Your task to perform on an android device: What's the weather today? Image 0: 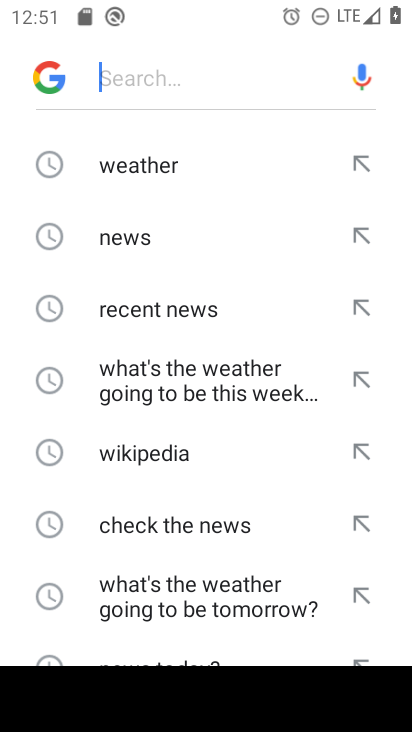
Step 0: type "what's the weather today"
Your task to perform on an android device: What's the weather today? Image 1: 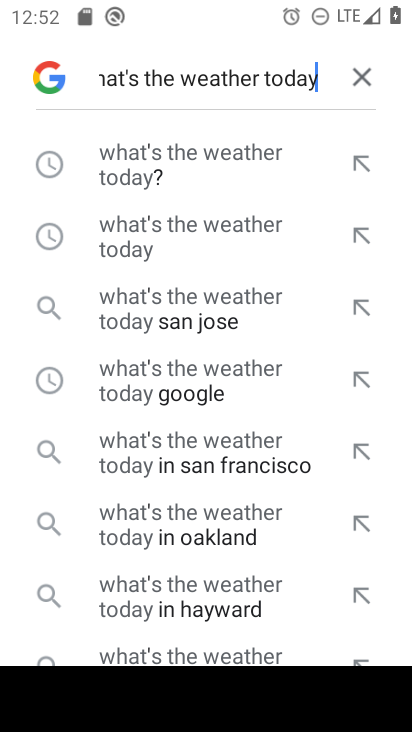
Step 1: click (143, 156)
Your task to perform on an android device: What's the weather today? Image 2: 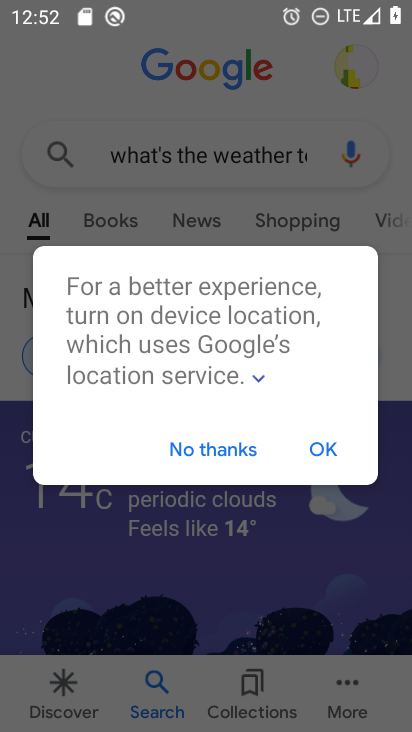
Step 2: click (184, 448)
Your task to perform on an android device: What's the weather today? Image 3: 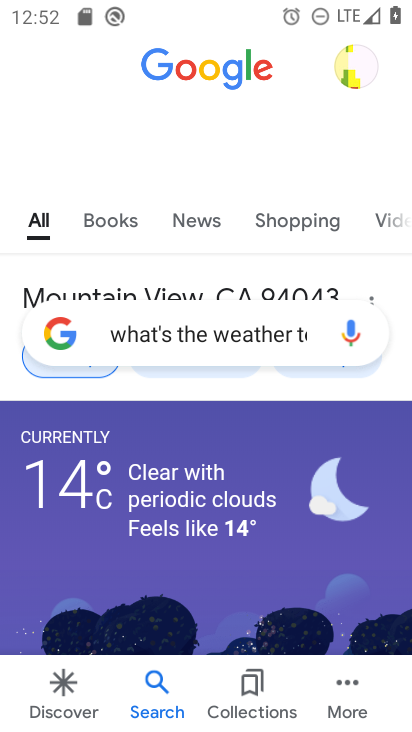
Step 3: task complete